Your task to perform on an android device: turn on the 24-hour format for clock Image 0: 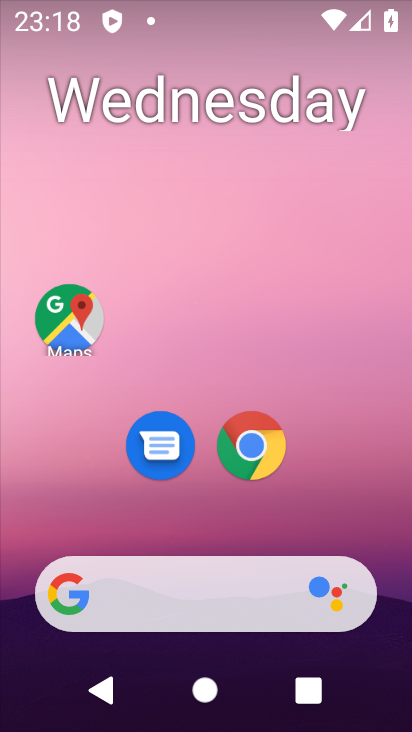
Step 0: drag from (216, 388) to (234, 59)
Your task to perform on an android device: turn on the 24-hour format for clock Image 1: 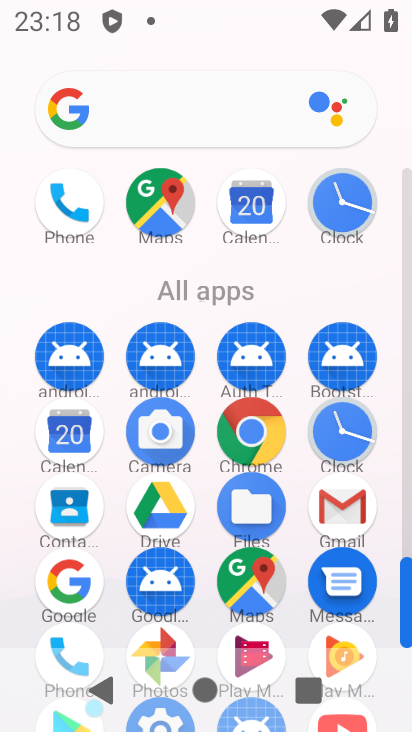
Step 1: click (340, 206)
Your task to perform on an android device: turn on the 24-hour format for clock Image 2: 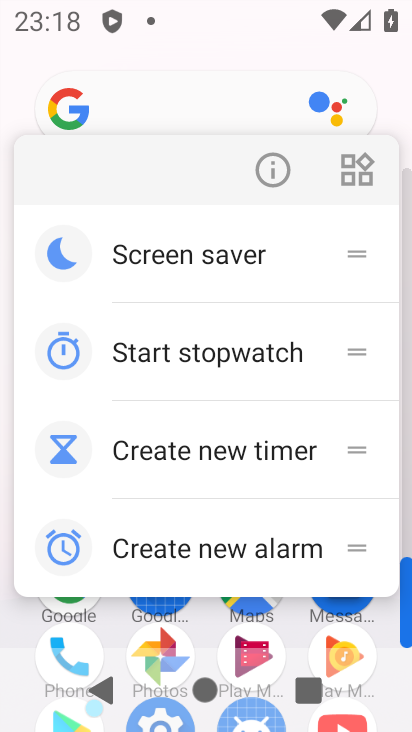
Step 2: press back button
Your task to perform on an android device: turn on the 24-hour format for clock Image 3: 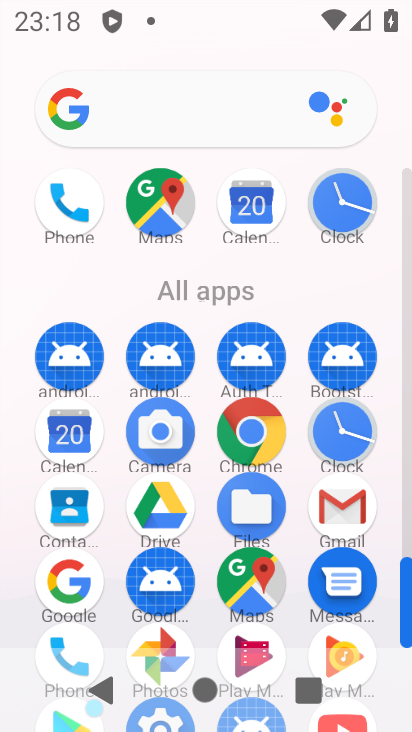
Step 3: click (342, 189)
Your task to perform on an android device: turn on the 24-hour format for clock Image 4: 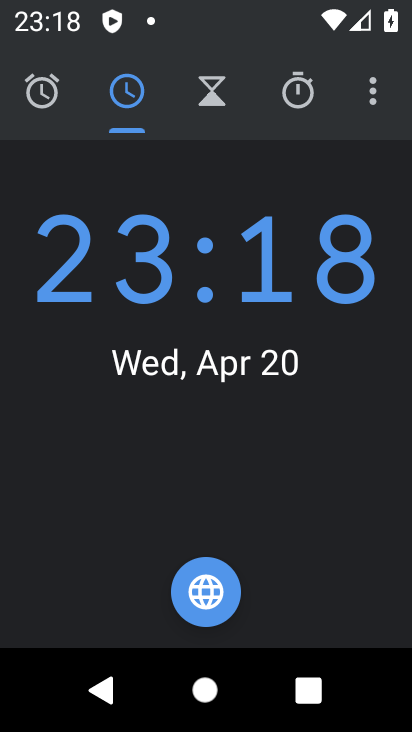
Step 4: drag from (371, 99) to (303, 175)
Your task to perform on an android device: turn on the 24-hour format for clock Image 5: 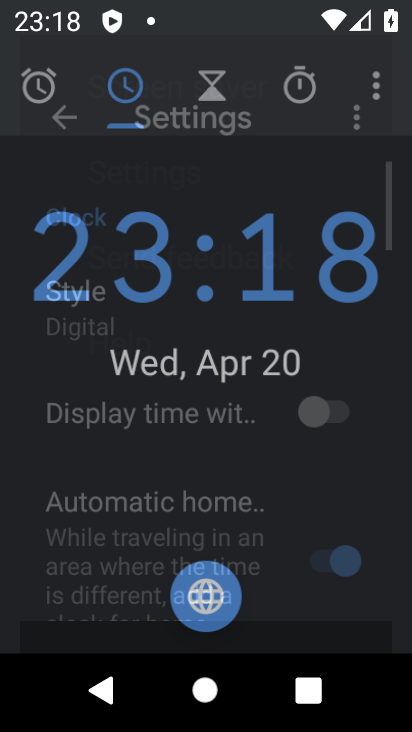
Step 5: click (321, 409)
Your task to perform on an android device: turn on the 24-hour format for clock Image 6: 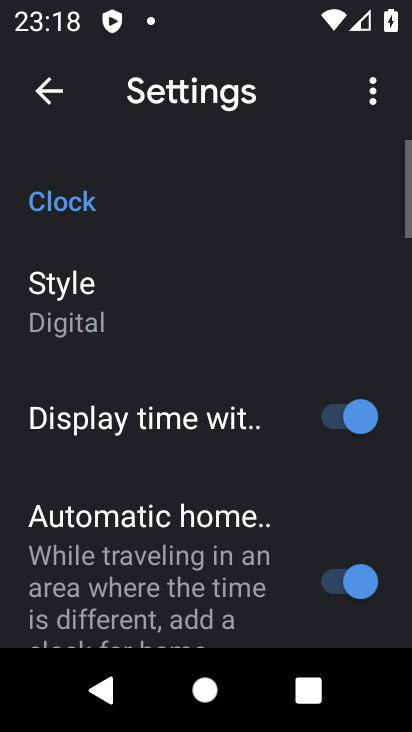
Step 6: drag from (142, 539) to (232, 147)
Your task to perform on an android device: turn on the 24-hour format for clock Image 7: 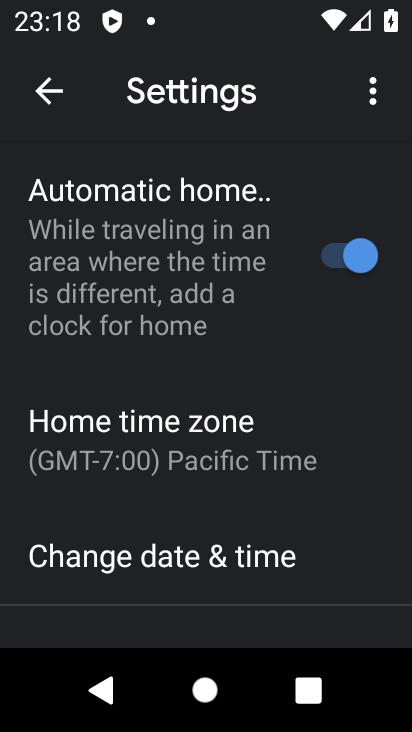
Step 7: drag from (168, 546) to (181, 181)
Your task to perform on an android device: turn on the 24-hour format for clock Image 8: 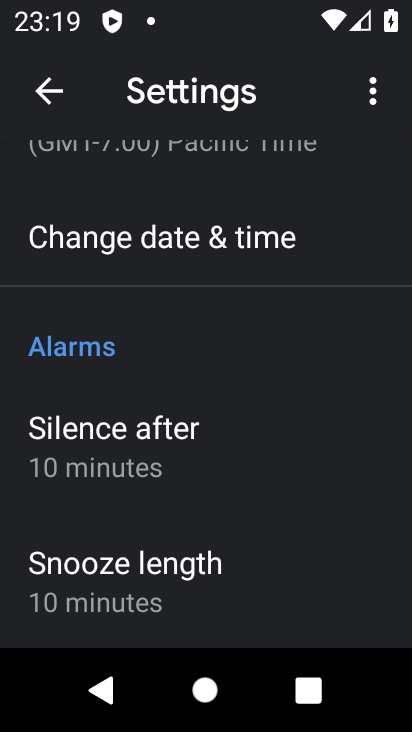
Step 8: click (119, 582)
Your task to perform on an android device: turn on the 24-hour format for clock Image 9: 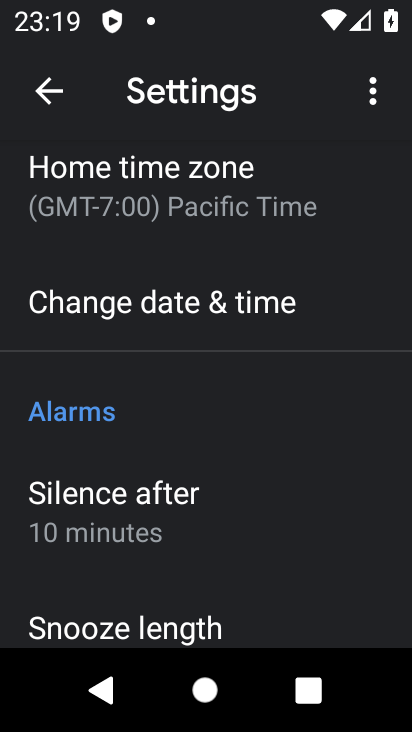
Step 9: click (167, 296)
Your task to perform on an android device: turn on the 24-hour format for clock Image 10: 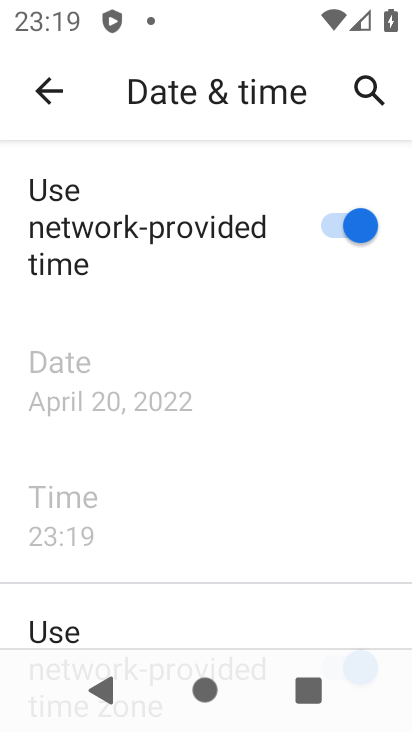
Step 10: task complete